Your task to perform on an android device: Open calendar and show me the fourth week of next month Image 0: 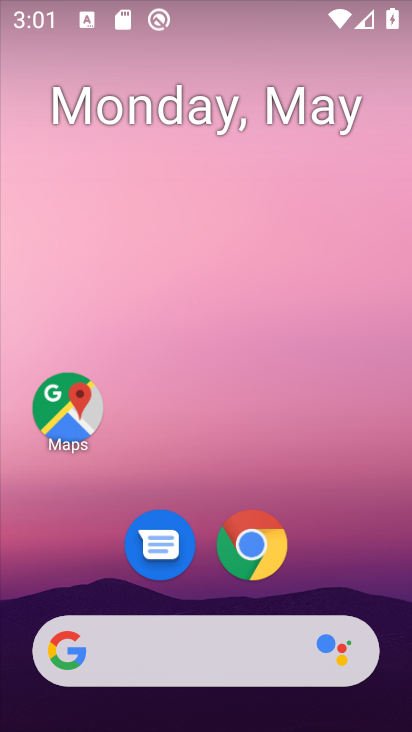
Step 0: drag from (208, 597) to (283, 180)
Your task to perform on an android device: Open calendar and show me the fourth week of next month Image 1: 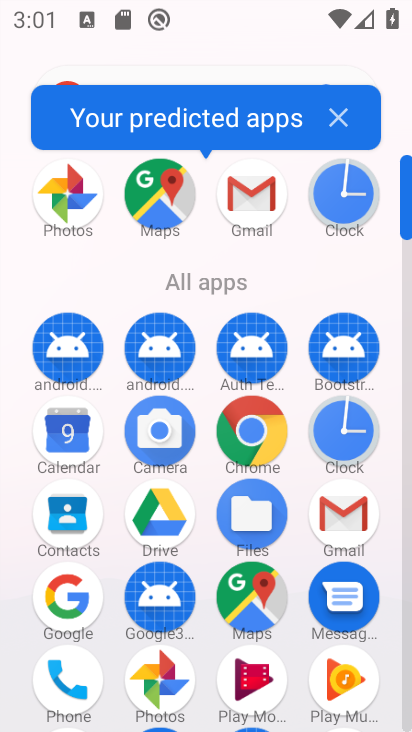
Step 1: click (59, 449)
Your task to perform on an android device: Open calendar and show me the fourth week of next month Image 2: 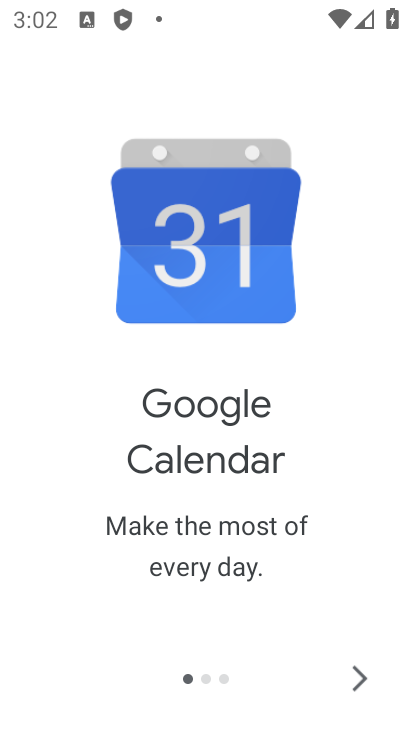
Step 2: click (364, 678)
Your task to perform on an android device: Open calendar and show me the fourth week of next month Image 3: 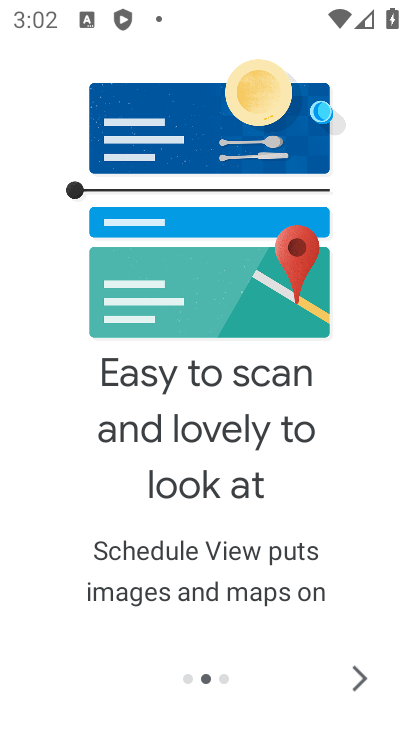
Step 3: click (364, 678)
Your task to perform on an android device: Open calendar and show me the fourth week of next month Image 4: 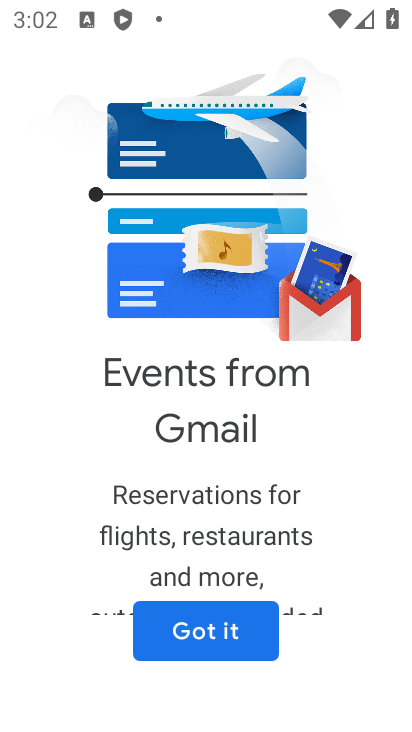
Step 4: click (247, 637)
Your task to perform on an android device: Open calendar and show me the fourth week of next month Image 5: 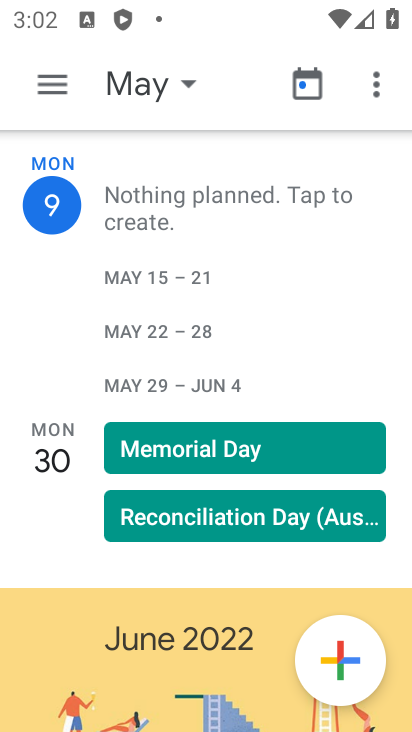
Step 5: click (195, 73)
Your task to perform on an android device: Open calendar and show me the fourth week of next month Image 6: 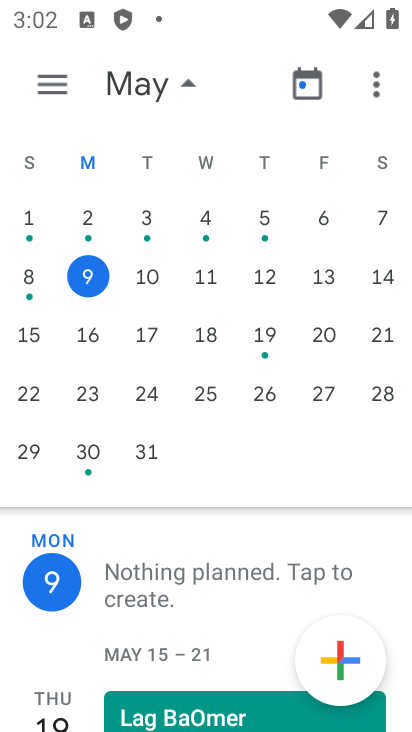
Step 6: drag from (317, 337) to (18, 305)
Your task to perform on an android device: Open calendar and show me the fourth week of next month Image 7: 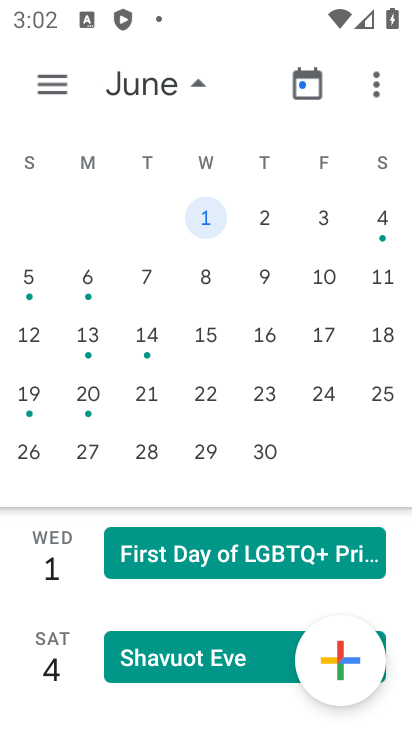
Step 7: click (144, 399)
Your task to perform on an android device: Open calendar and show me the fourth week of next month Image 8: 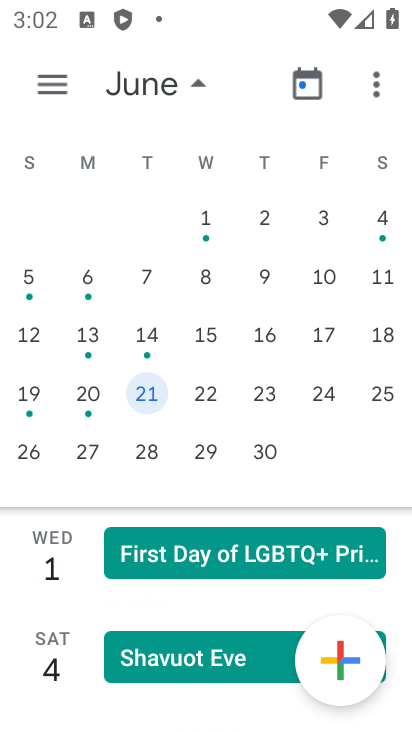
Step 8: click (87, 392)
Your task to perform on an android device: Open calendar and show me the fourth week of next month Image 9: 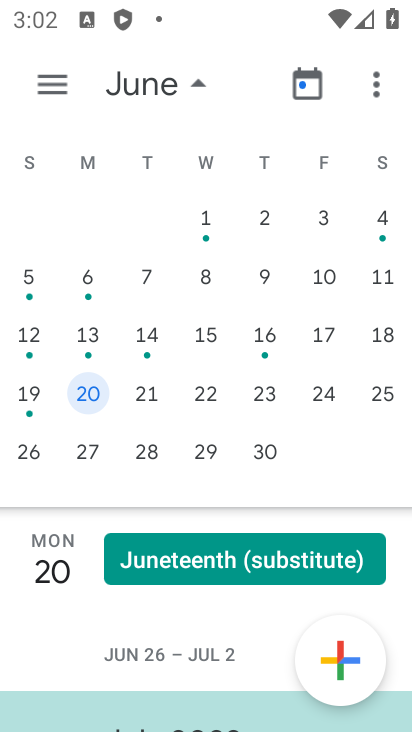
Step 9: task complete